Your task to perform on an android device: create a new album in the google photos Image 0: 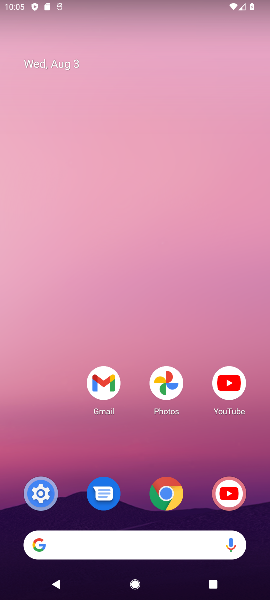
Step 0: press home button
Your task to perform on an android device: create a new album in the google photos Image 1: 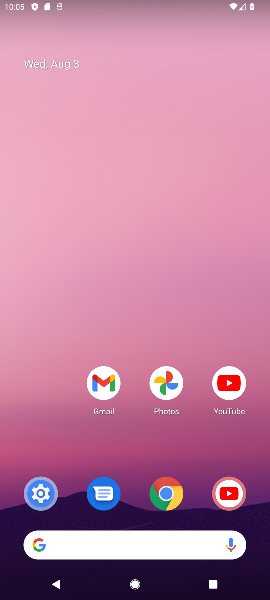
Step 1: click (161, 378)
Your task to perform on an android device: create a new album in the google photos Image 2: 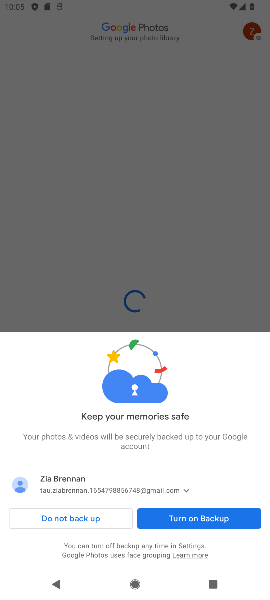
Step 2: click (196, 517)
Your task to perform on an android device: create a new album in the google photos Image 3: 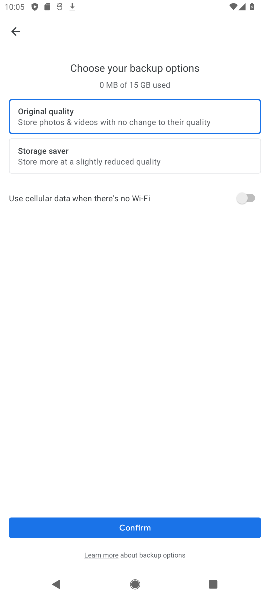
Step 3: click (136, 522)
Your task to perform on an android device: create a new album in the google photos Image 4: 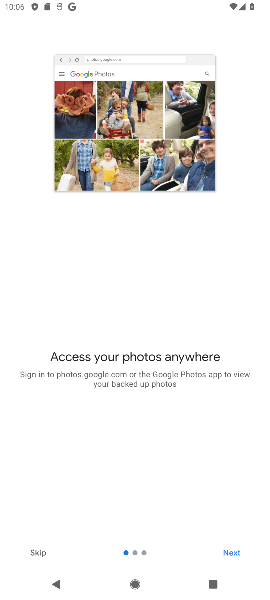
Step 4: click (34, 550)
Your task to perform on an android device: create a new album in the google photos Image 5: 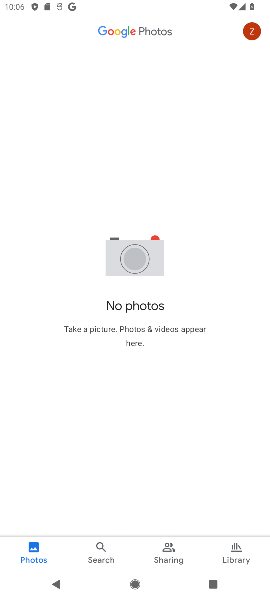
Step 5: click (171, 553)
Your task to perform on an android device: create a new album in the google photos Image 6: 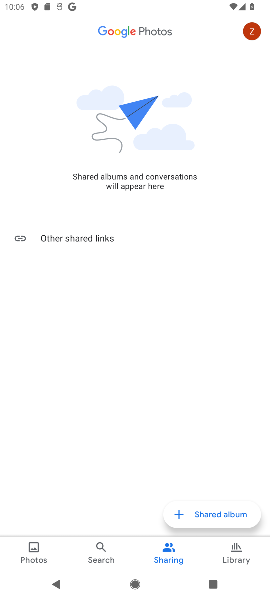
Step 6: click (194, 516)
Your task to perform on an android device: create a new album in the google photos Image 7: 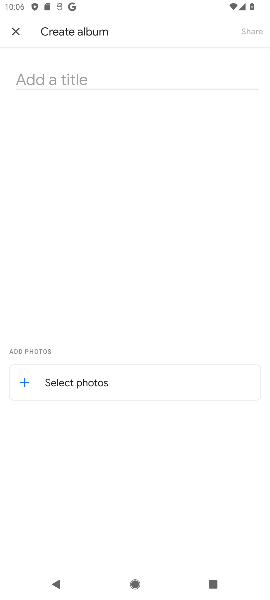
Step 7: click (36, 381)
Your task to perform on an android device: create a new album in the google photos Image 8: 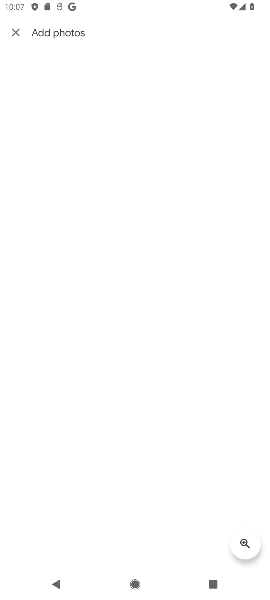
Step 8: task complete